Your task to perform on an android device: Open Chrome and go to settings Image 0: 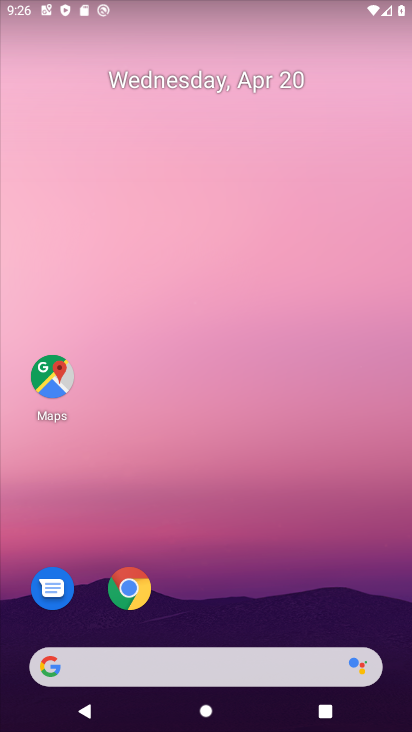
Step 0: click (135, 582)
Your task to perform on an android device: Open Chrome and go to settings Image 1: 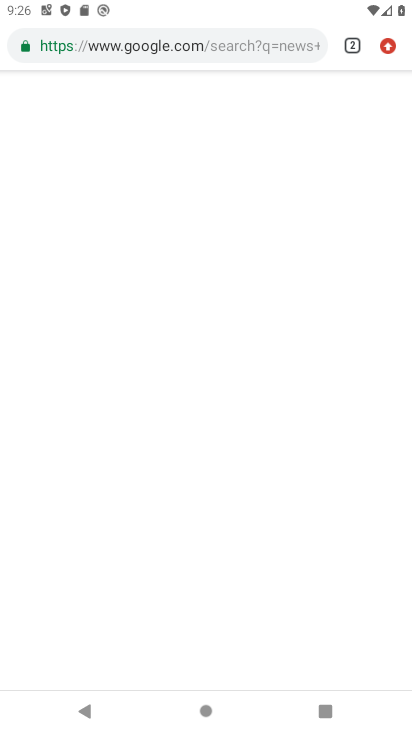
Step 1: task complete